Your task to perform on an android device: Go to internet settings Image 0: 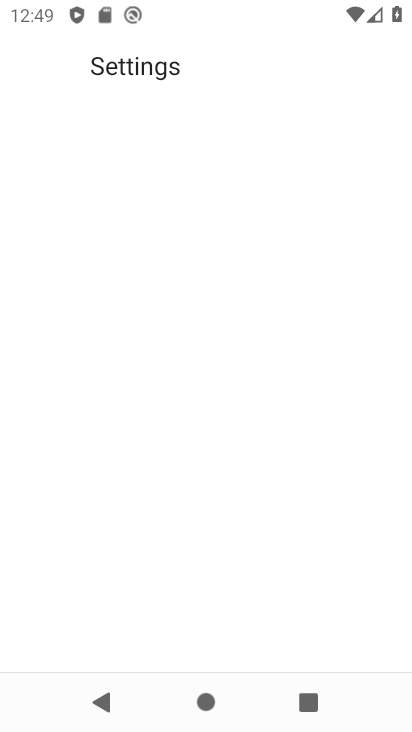
Step 0: press home button
Your task to perform on an android device: Go to internet settings Image 1: 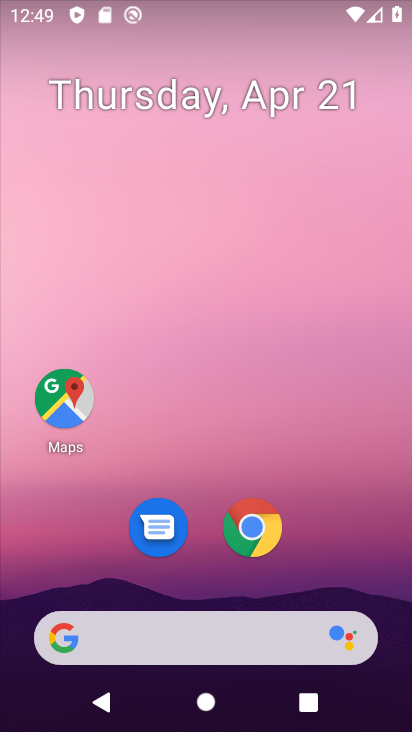
Step 1: drag from (351, 572) to (353, 113)
Your task to perform on an android device: Go to internet settings Image 2: 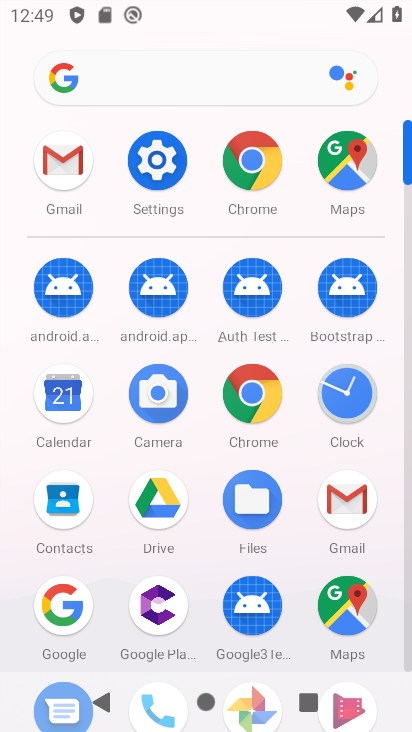
Step 2: click (168, 165)
Your task to perform on an android device: Go to internet settings Image 3: 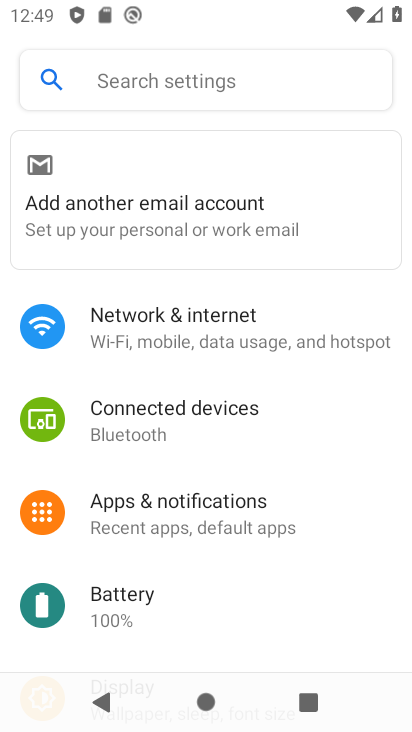
Step 3: drag from (341, 634) to (361, 413)
Your task to perform on an android device: Go to internet settings Image 4: 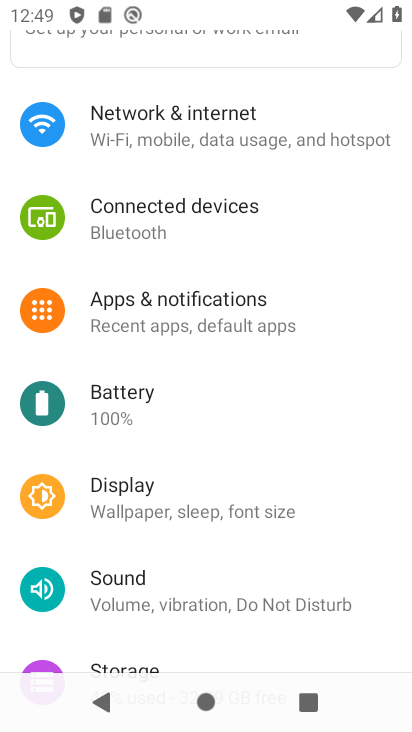
Step 4: drag from (350, 645) to (368, 407)
Your task to perform on an android device: Go to internet settings Image 5: 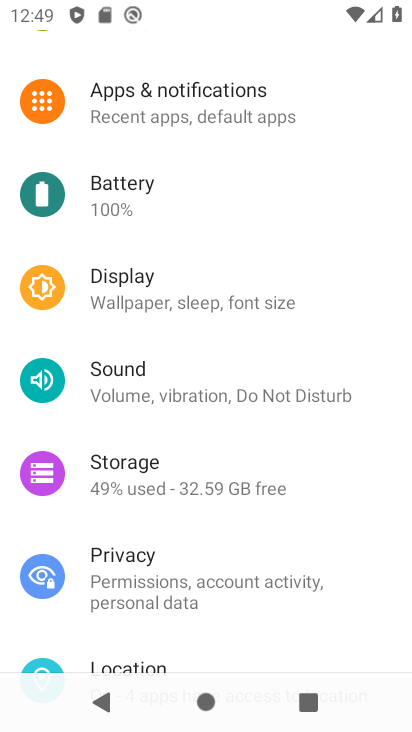
Step 5: drag from (343, 520) to (377, 328)
Your task to perform on an android device: Go to internet settings Image 6: 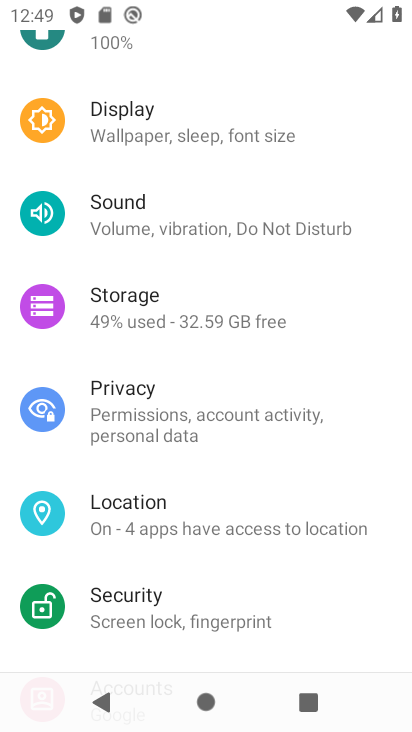
Step 6: drag from (361, 571) to (370, 328)
Your task to perform on an android device: Go to internet settings Image 7: 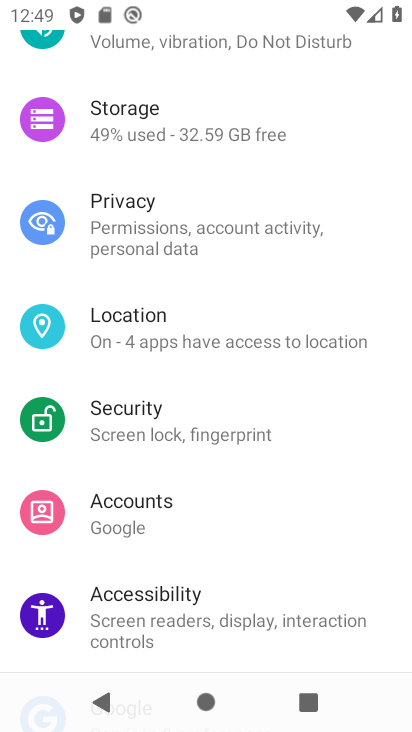
Step 7: drag from (326, 520) to (336, 290)
Your task to perform on an android device: Go to internet settings Image 8: 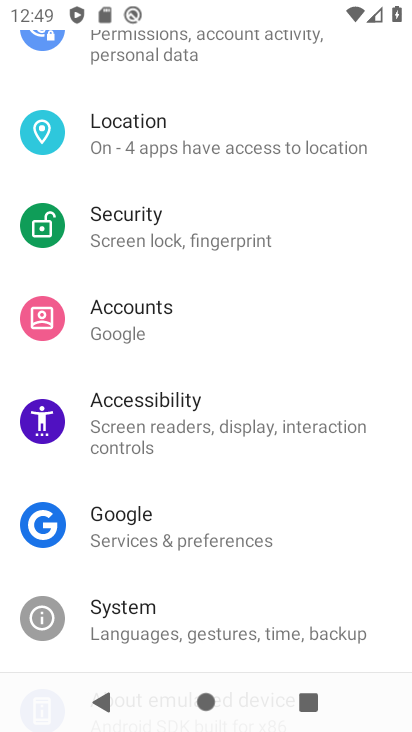
Step 8: drag from (349, 522) to (362, 327)
Your task to perform on an android device: Go to internet settings Image 9: 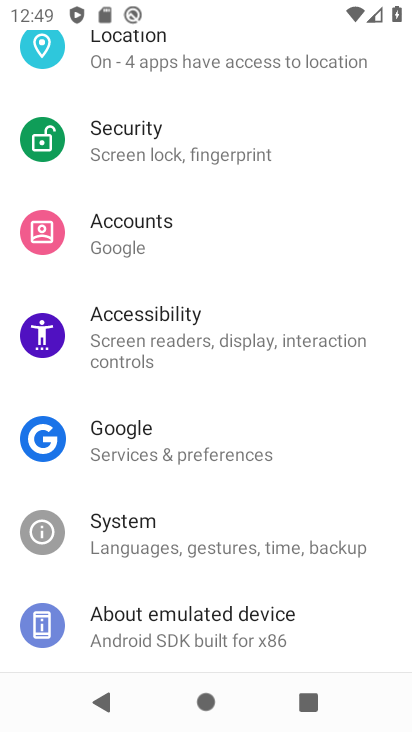
Step 9: drag from (370, 612) to (400, 335)
Your task to perform on an android device: Go to internet settings Image 10: 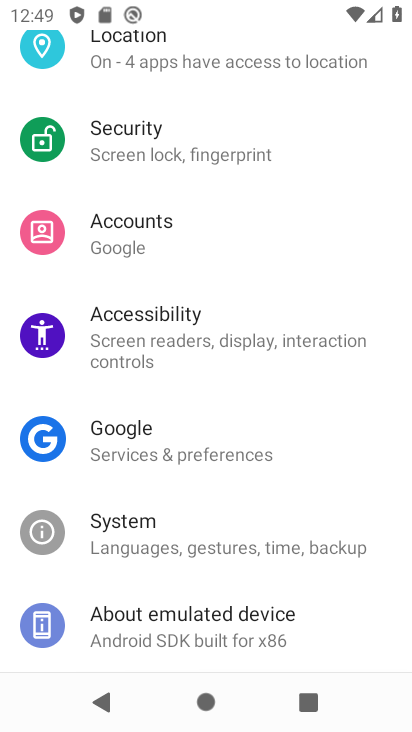
Step 10: drag from (384, 266) to (356, 492)
Your task to perform on an android device: Go to internet settings Image 11: 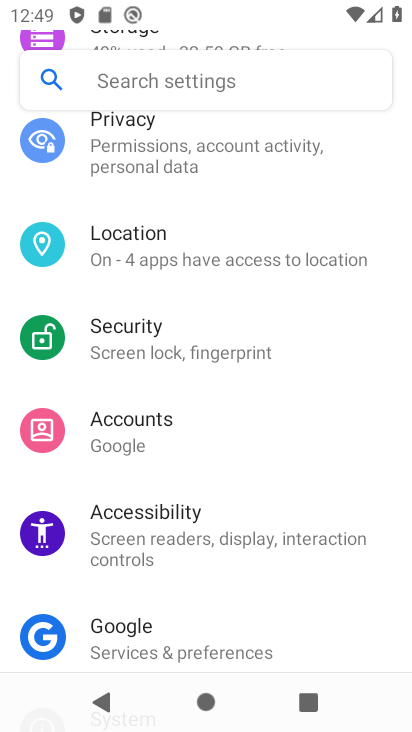
Step 11: drag from (364, 221) to (345, 462)
Your task to perform on an android device: Go to internet settings Image 12: 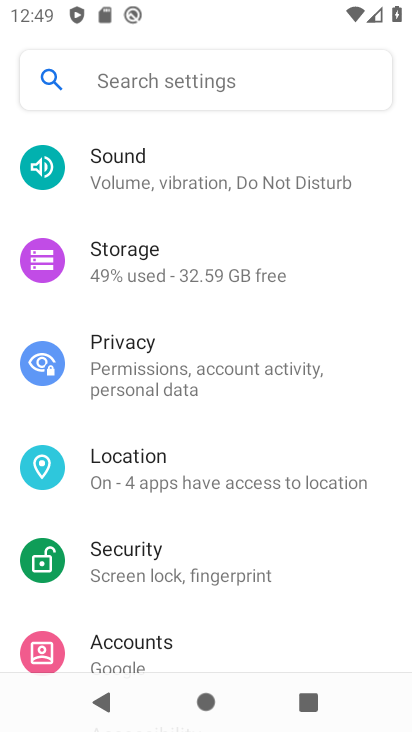
Step 12: drag from (351, 259) to (340, 445)
Your task to perform on an android device: Go to internet settings Image 13: 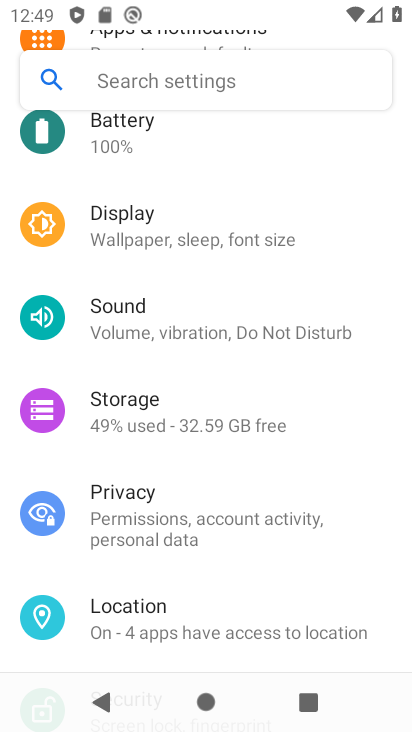
Step 13: drag from (371, 235) to (377, 437)
Your task to perform on an android device: Go to internet settings Image 14: 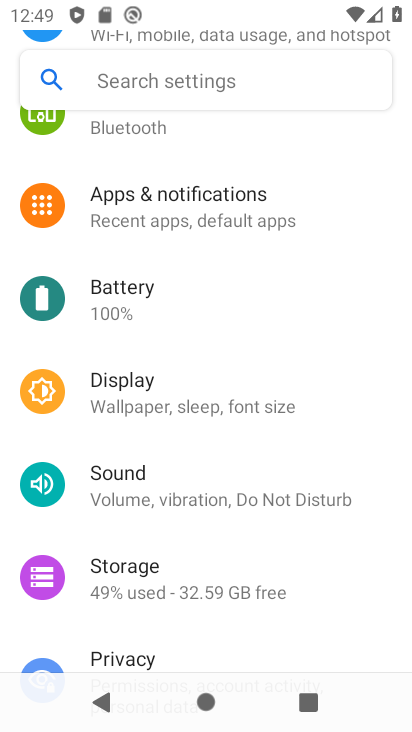
Step 14: drag from (356, 224) to (358, 457)
Your task to perform on an android device: Go to internet settings Image 15: 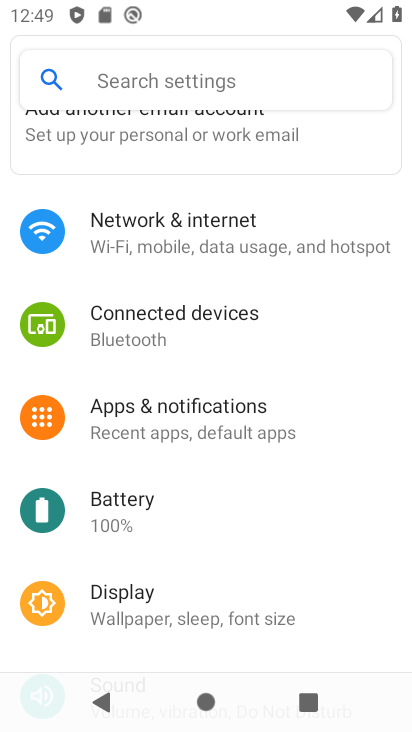
Step 15: click (293, 224)
Your task to perform on an android device: Go to internet settings Image 16: 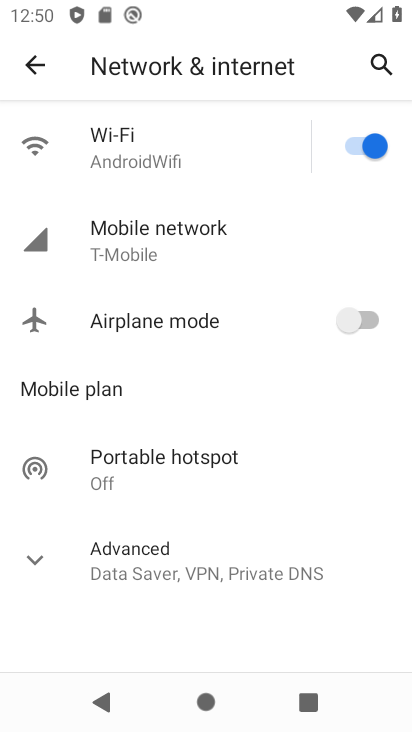
Step 16: task complete